Your task to perform on an android device: Is it going to rain today? Image 0: 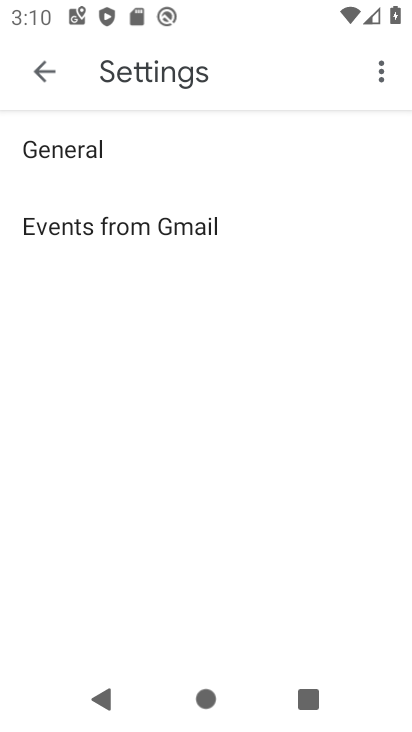
Step 0: press home button
Your task to perform on an android device: Is it going to rain today? Image 1: 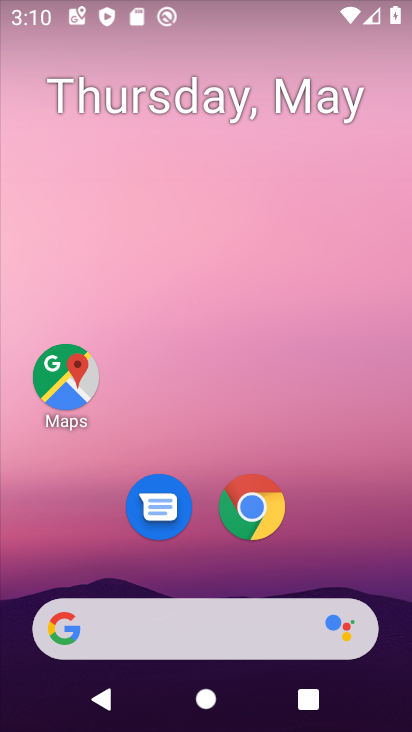
Step 1: drag from (346, 491) to (360, 141)
Your task to perform on an android device: Is it going to rain today? Image 2: 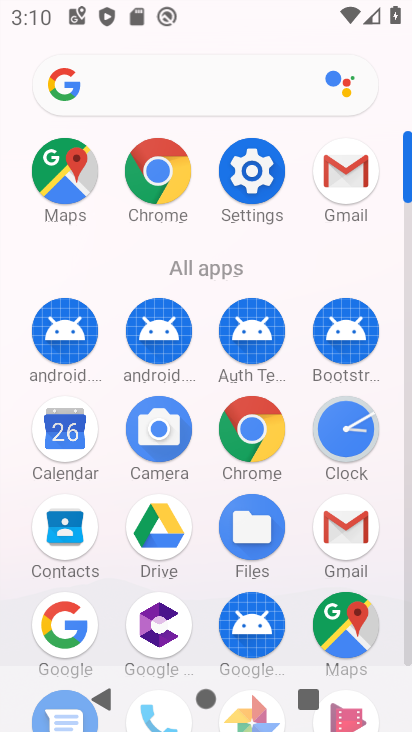
Step 2: click (73, 171)
Your task to perform on an android device: Is it going to rain today? Image 3: 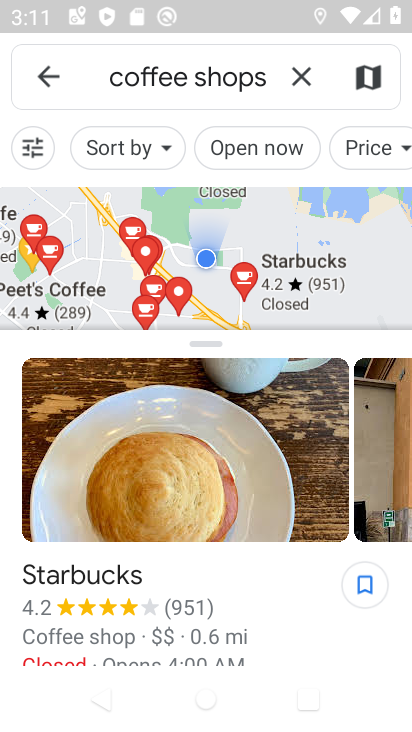
Step 3: press home button
Your task to perform on an android device: Is it going to rain today? Image 4: 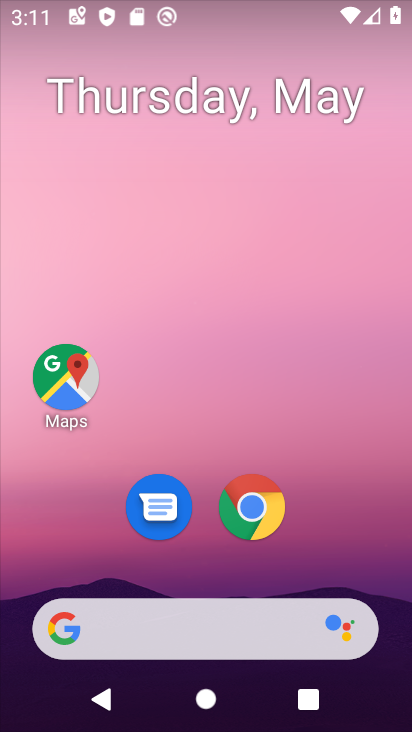
Step 4: click (253, 507)
Your task to perform on an android device: Is it going to rain today? Image 5: 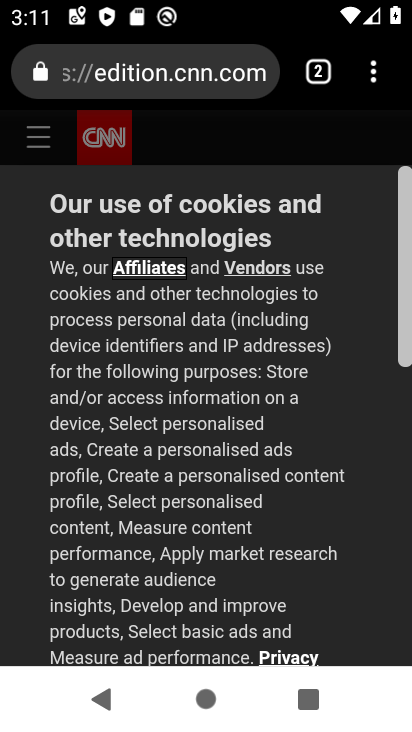
Step 5: drag from (376, 77) to (176, 145)
Your task to perform on an android device: Is it going to rain today? Image 6: 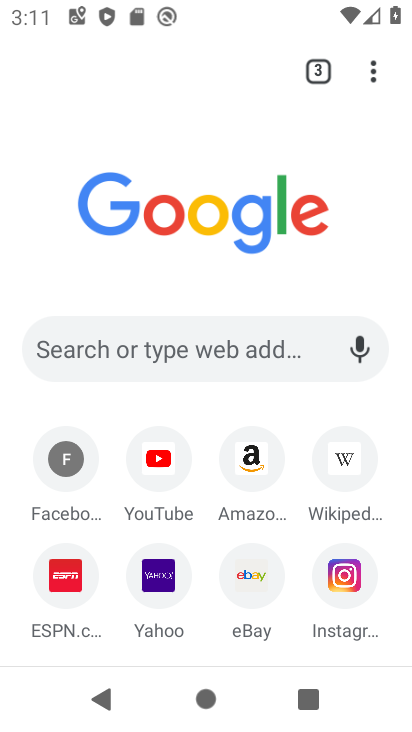
Step 6: click (83, 349)
Your task to perform on an android device: Is it going to rain today? Image 7: 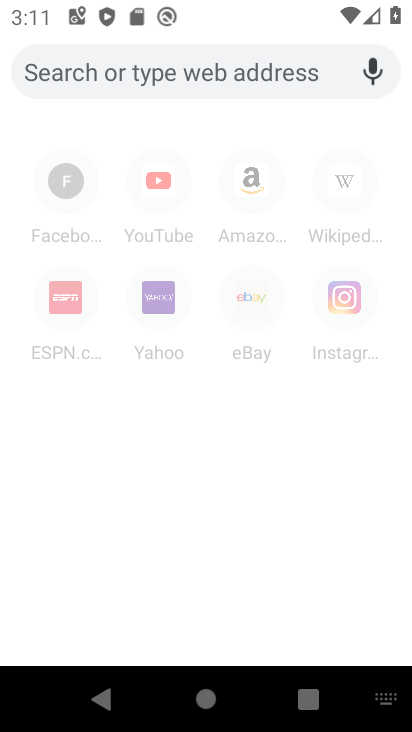
Step 7: type "Is it going to rain today?"
Your task to perform on an android device: Is it going to rain today? Image 8: 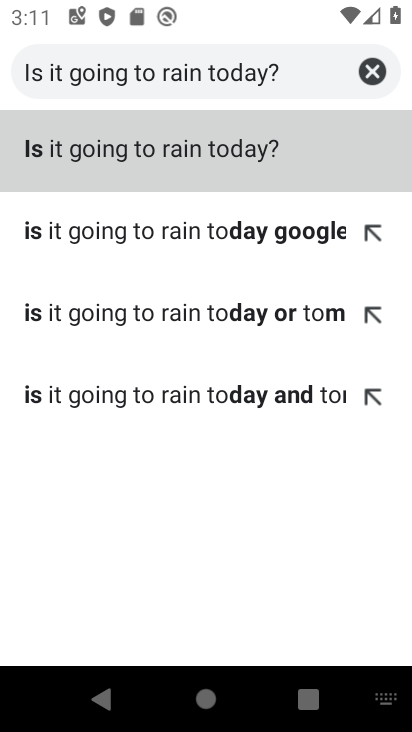
Step 8: click (129, 142)
Your task to perform on an android device: Is it going to rain today? Image 9: 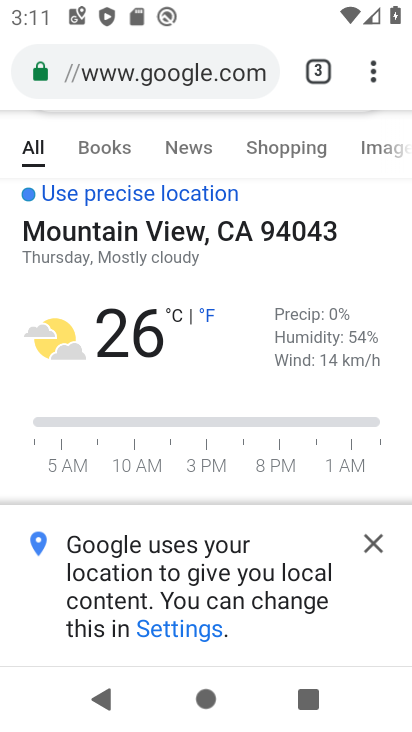
Step 9: task complete